Your task to perform on an android device: Add corsair k70 to the cart on newegg.com, then select checkout. Image 0: 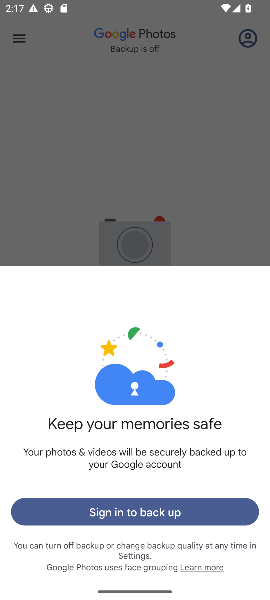
Step 0: press home button
Your task to perform on an android device: Add corsair k70 to the cart on newegg.com, then select checkout. Image 1: 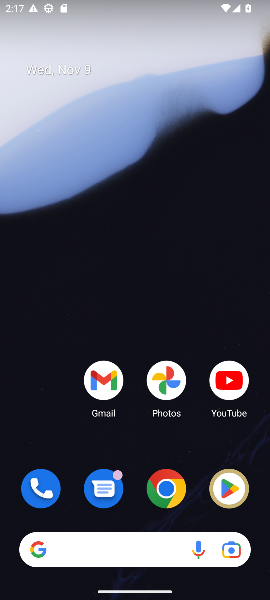
Step 1: drag from (138, 525) to (187, 40)
Your task to perform on an android device: Add corsair k70 to the cart on newegg.com, then select checkout. Image 2: 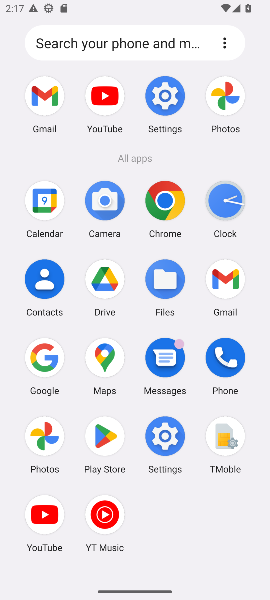
Step 2: click (166, 205)
Your task to perform on an android device: Add corsair k70 to the cart on newegg.com, then select checkout. Image 3: 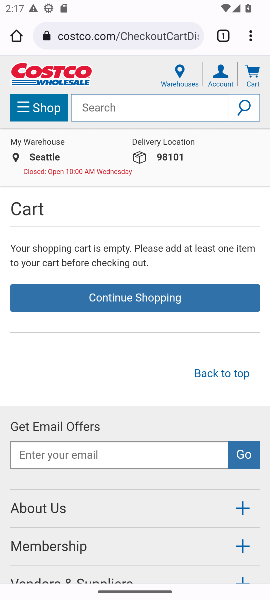
Step 3: click (132, 32)
Your task to perform on an android device: Add corsair k70 to the cart on newegg.com, then select checkout. Image 4: 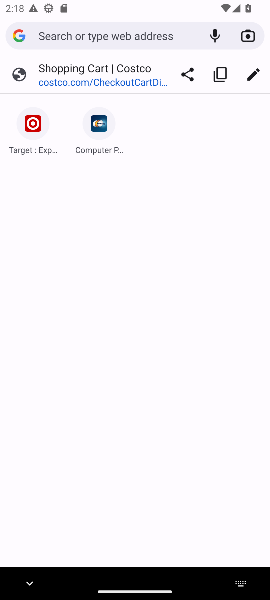
Step 4: type "newegg.com"
Your task to perform on an android device: Add corsair k70 to the cart on newegg.com, then select checkout. Image 5: 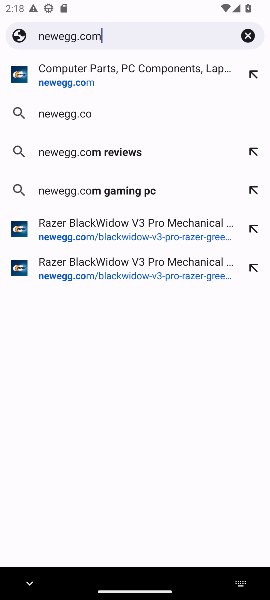
Step 5: press enter
Your task to perform on an android device: Add corsair k70 to the cart on newegg.com, then select checkout. Image 6: 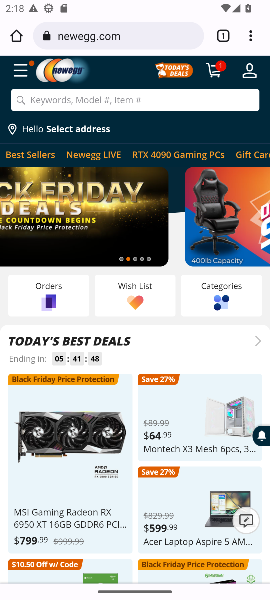
Step 6: click (154, 93)
Your task to perform on an android device: Add corsair k70 to the cart on newegg.com, then select checkout. Image 7: 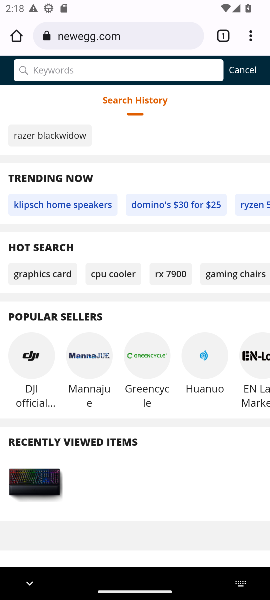
Step 7: type "corsair k70"
Your task to perform on an android device: Add corsair k70 to the cart on newegg.com, then select checkout. Image 8: 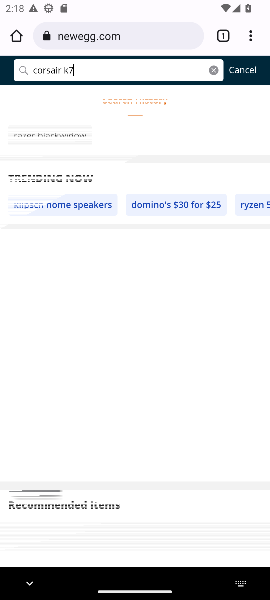
Step 8: press enter
Your task to perform on an android device: Add corsair k70 to the cart on newegg.com, then select checkout. Image 9: 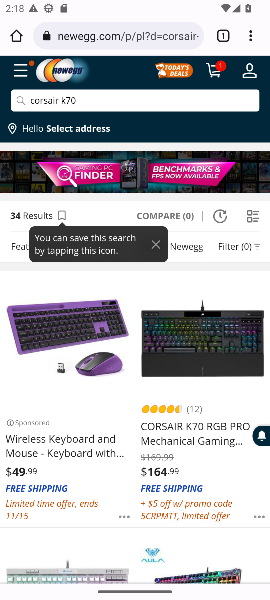
Step 9: click (204, 442)
Your task to perform on an android device: Add corsair k70 to the cart on newegg.com, then select checkout. Image 10: 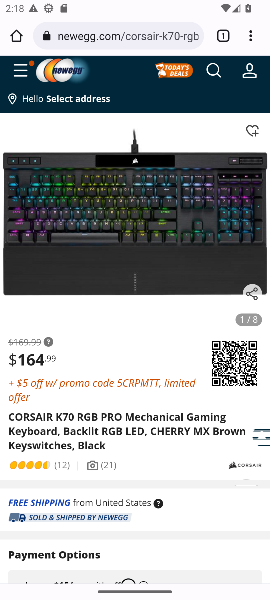
Step 10: drag from (135, 510) to (177, 297)
Your task to perform on an android device: Add corsair k70 to the cart on newegg.com, then select checkout. Image 11: 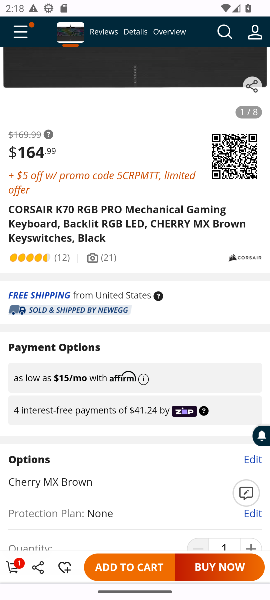
Step 11: click (132, 568)
Your task to perform on an android device: Add corsair k70 to the cart on newegg.com, then select checkout. Image 12: 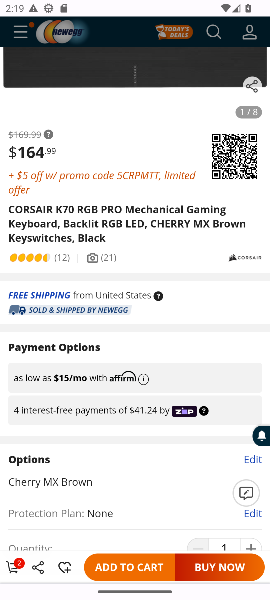
Step 12: click (15, 565)
Your task to perform on an android device: Add corsair k70 to the cart on newegg.com, then select checkout. Image 13: 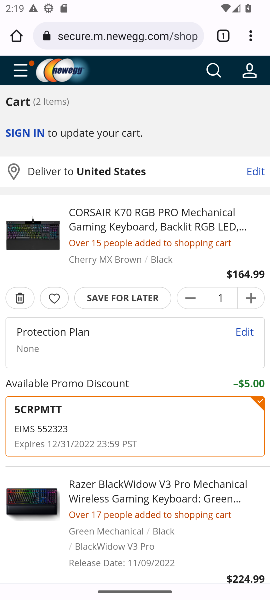
Step 13: drag from (163, 381) to (174, 311)
Your task to perform on an android device: Add corsair k70 to the cart on newegg.com, then select checkout. Image 14: 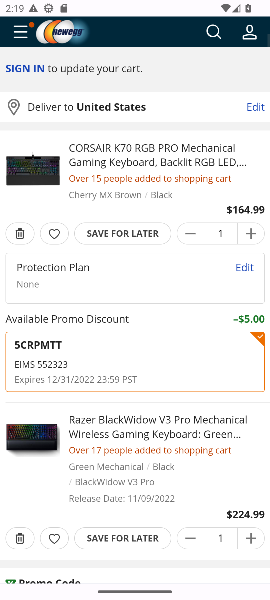
Step 14: drag from (135, 467) to (129, 215)
Your task to perform on an android device: Add corsair k70 to the cart on newegg.com, then select checkout. Image 15: 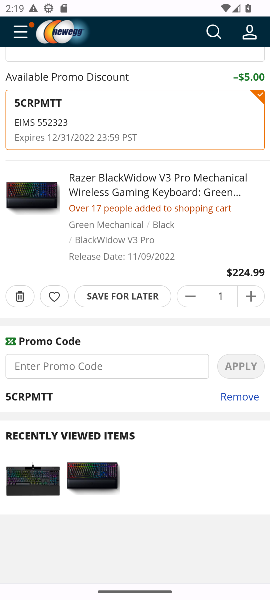
Step 15: click (126, 561)
Your task to perform on an android device: Add corsair k70 to the cart on newegg.com, then select checkout. Image 16: 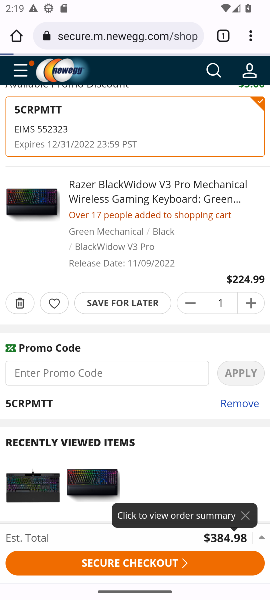
Step 16: click (126, 561)
Your task to perform on an android device: Add corsair k70 to the cart on newegg.com, then select checkout. Image 17: 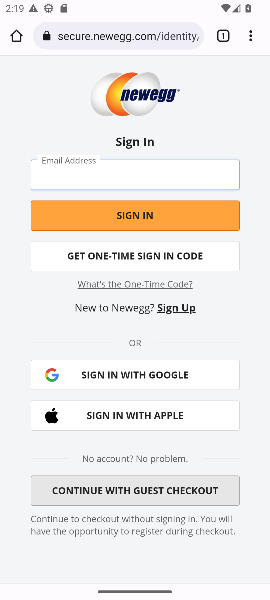
Step 17: task complete